Your task to perform on an android device: set the timer Image 0: 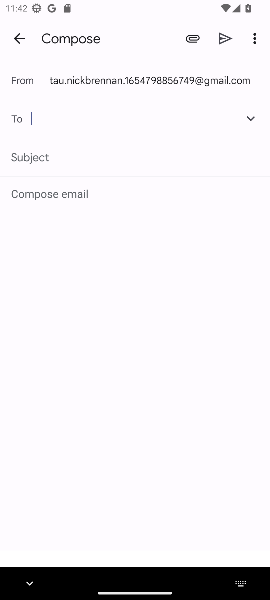
Step 0: press home button
Your task to perform on an android device: set the timer Image 1: 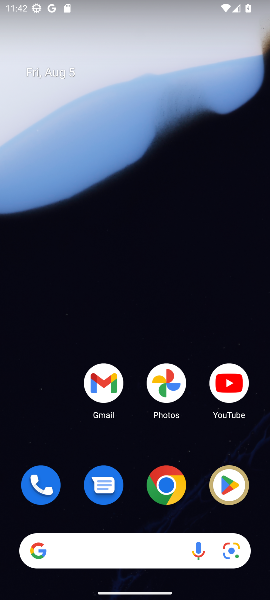
Step 1: drag from (115, 439) to (102, 71)
Your task to perform on an android device: set the timer Image 2: 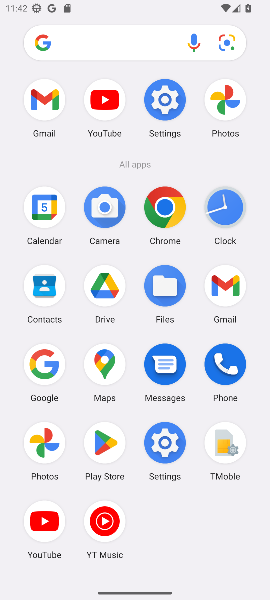
Step 2: click (220, 200)
Your task to perform on an android device: set the timer Image 3: 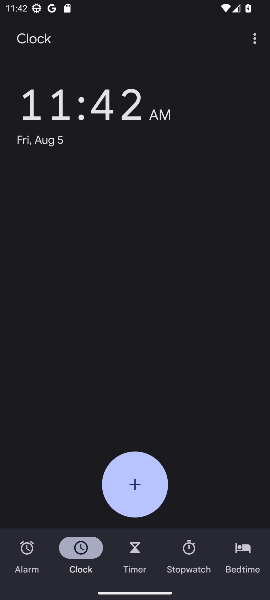
Step 3: click (139, 561)
Your task to perform on an android device: set the timer Image 4: 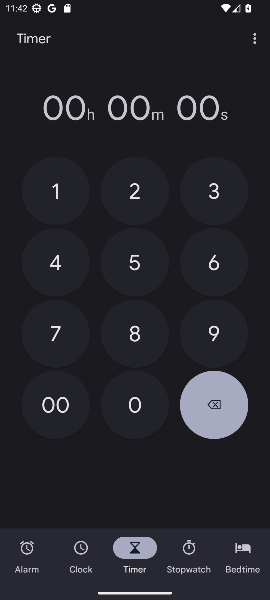
Step 4: click (55, 191)
Your task to perform on an android device: set the timer Image 5: 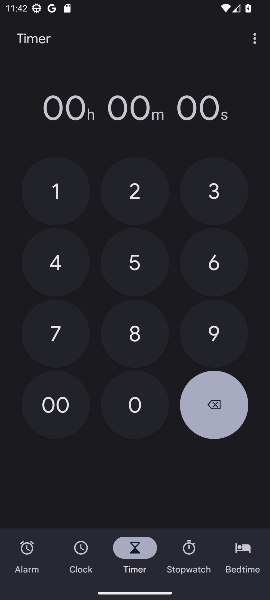
Step 5: click (55, 191)
Your task to perform on an android device: set the timer Image 6: 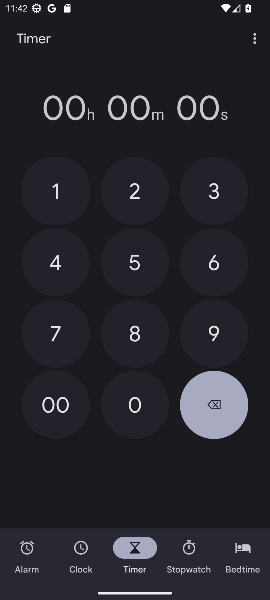
Step 6: click (55, 191)
Your task to perform on an android device: set the timer Image 7: 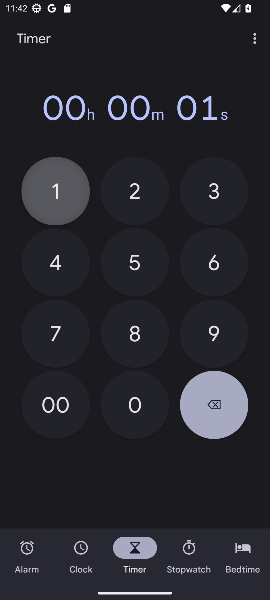
Step 7: click (55, 191)
Your task to perform on an android device: set the timer Image 8: 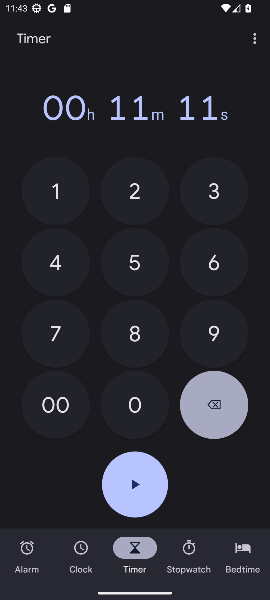
Step 8: click (43, 181)
Your task to perform on an android device: set the timer Image 9: 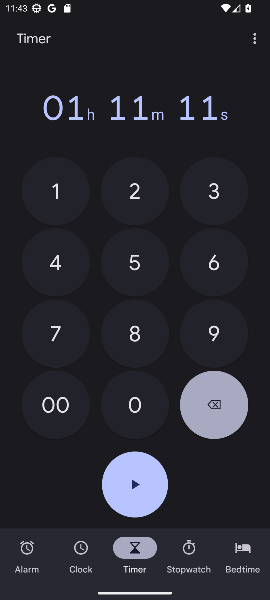
Step 9: click (52, 187)
Your task to perform on an android device: set the timer Image 10: 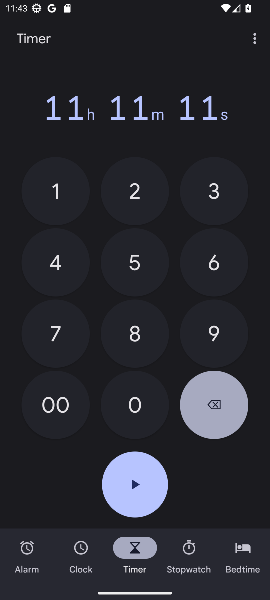
Step 10: task complete